Your task to perform on an android device: move an email to a new category in the gmail app Image 0: 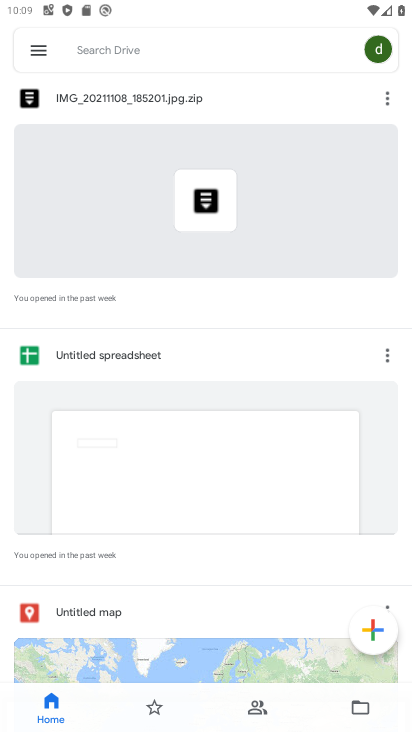
Step 0: press home button
Your task to perform on an android device: move an email to a new category in the gmail app Image 1: 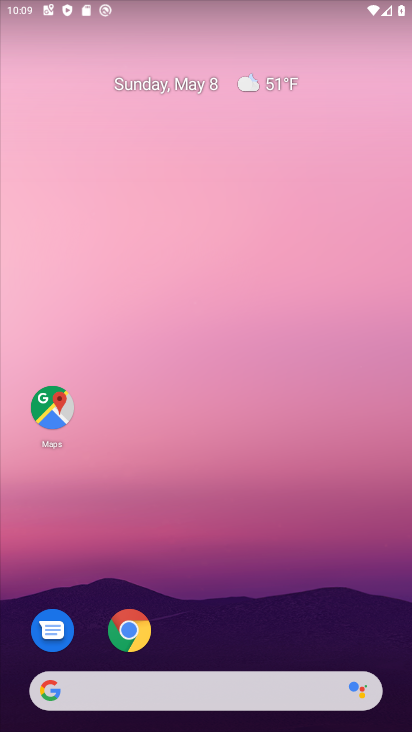
Step 1: drag from (362, 632) to (217, 81)
Your task to perform on an android device: move an email to a new category in the gmail app Image 2: 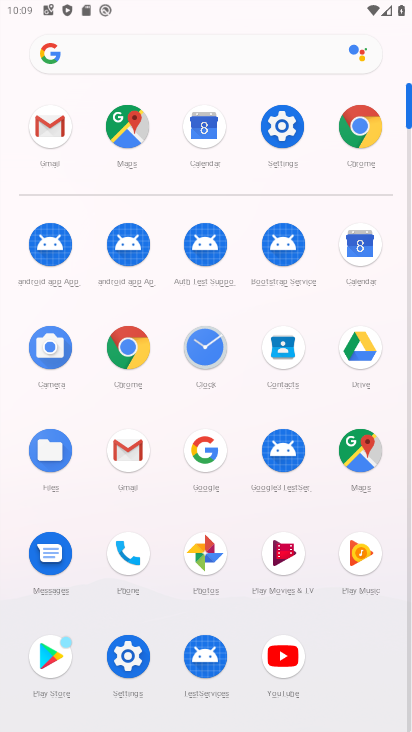
Step 2: click (124, 459)
Your task to perform on an android device: move an email to a new category in the gmail app Image 3: 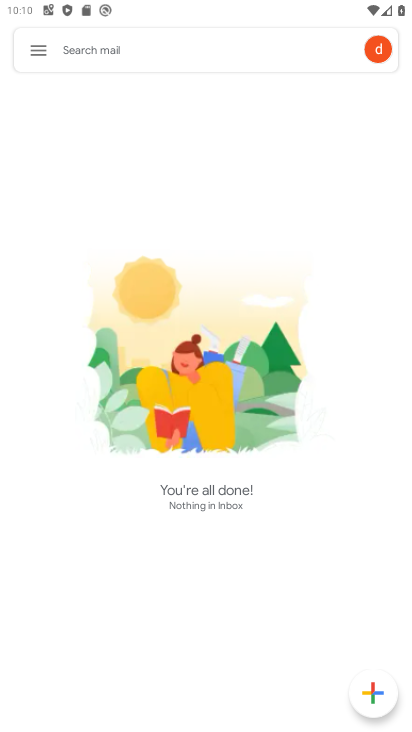
Step 3: task complete